Your task to perform on an android device: check out phone information Image 0: 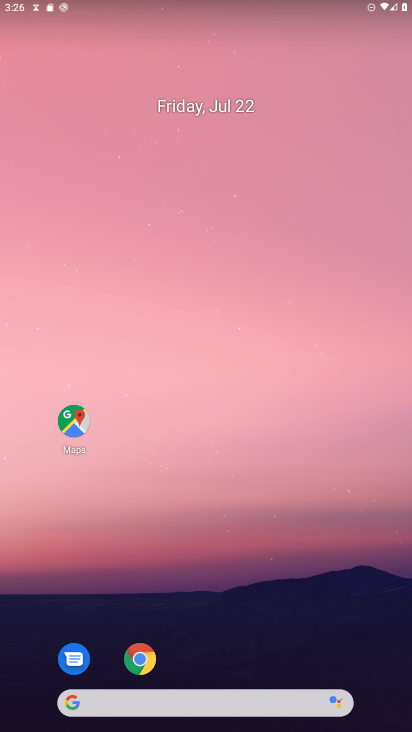
Step 0: drag from (312, 650) to (347, 155)
Your task to perform on an android device: check out phone information Image 1: 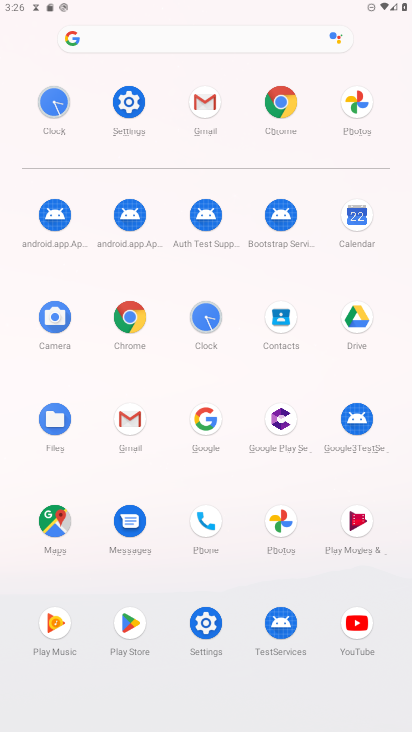
Step 1: click (128, 111)
Your task to perform on an android device: check out phone information Image 2: 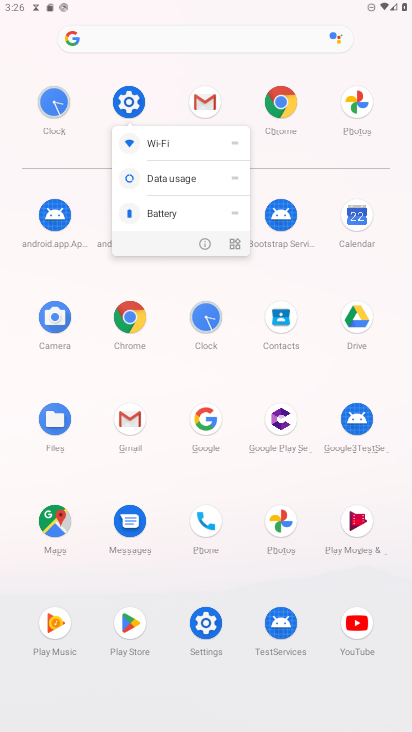
Step 2: click (131, 101)
Your task to perform on an android device: check out phone information Image 3: 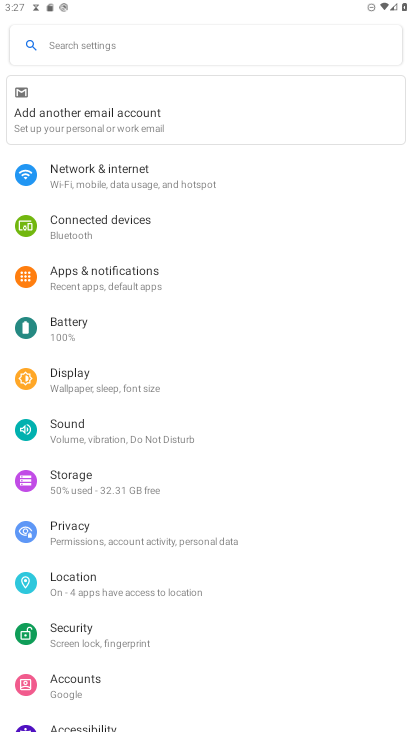
Step 3: drag from (338, 469) to (285, 33)
Your task to perform on an android device: check out phone information Image 4: 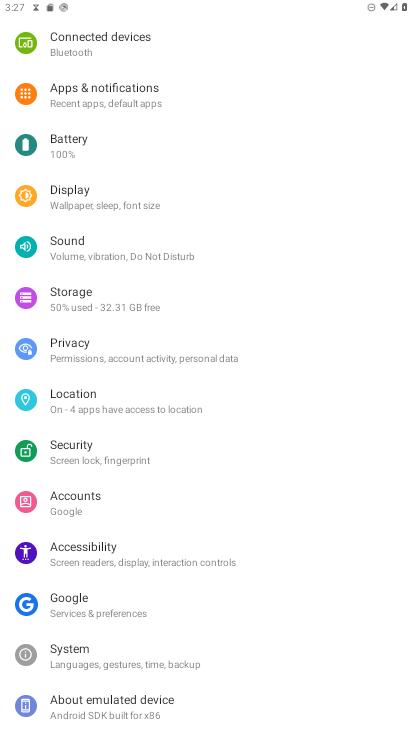
Step 4: click (109, 705)
Your task to perform on an android device: check out phone information Image 5: 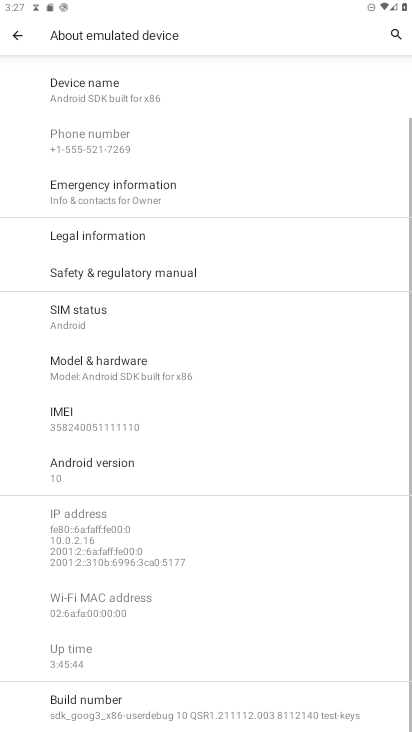
Step 5: task complete